Your task to perform on an android device: change text size in settings app Image 0: 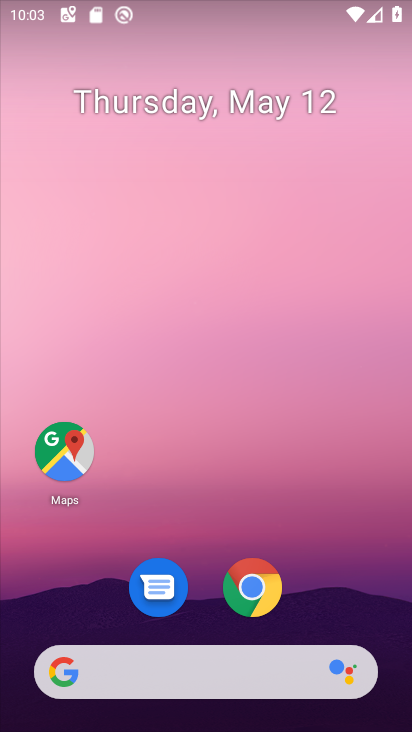
Step 0: drag from (390, 638) to (293, 72)
Your task to perform on an android device: change text size in settings app Image 1: 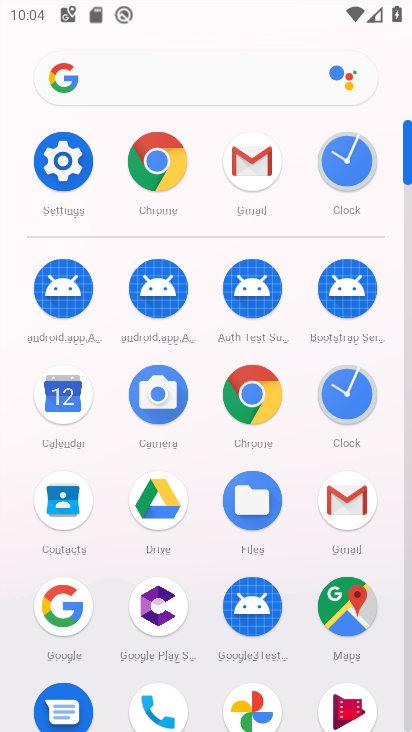
Step 1: click (56, 154)
Your task to perform on an android device: change text size in settings app Image 2: 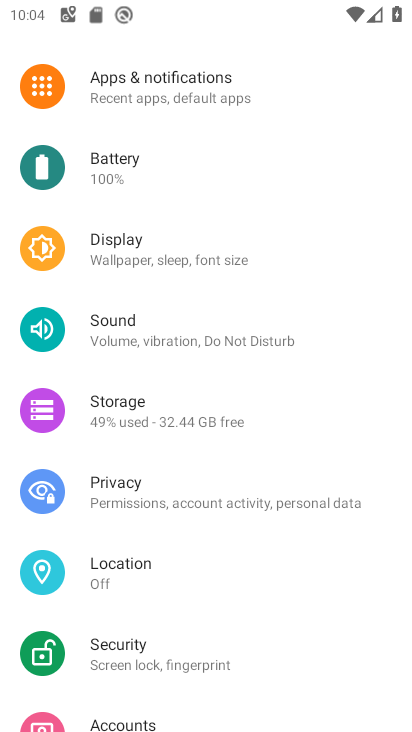
Step 2: click (138, 251)
Your task to perform on an android device: change text size in settings app Image 3: 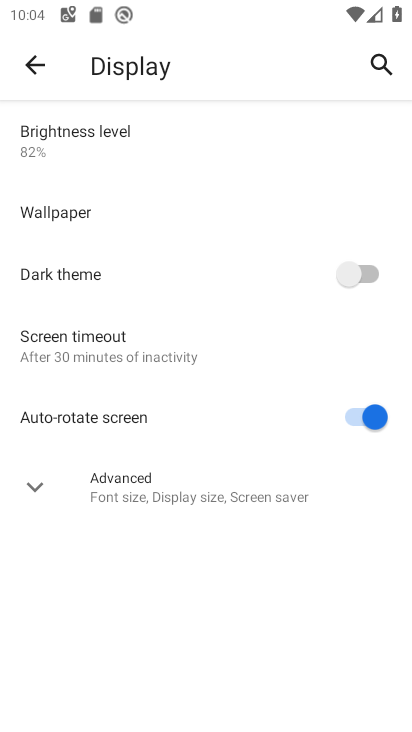
Step 3: click (112, 485)
Your task to perform on an android device: change text size in settings app Image 4: 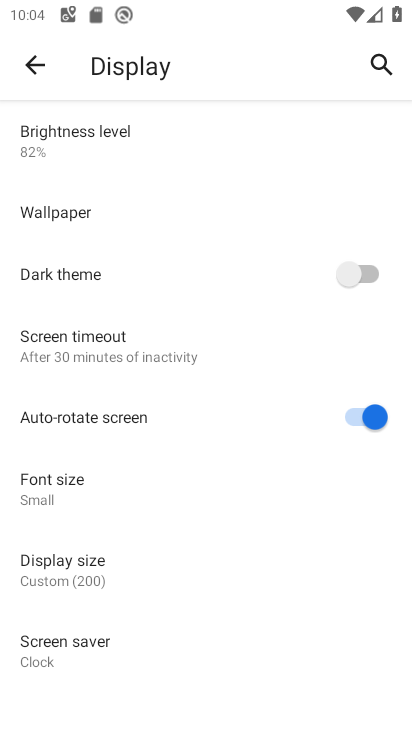
Step 4: click (112, 498)
Your task to perform on an android device: change text size in settings app Image 5: 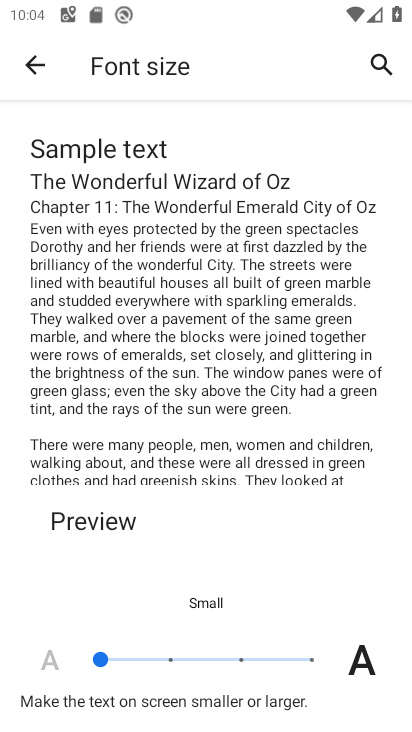
Step 5: click (173, 665)
Your task to perform on an android device: change text size in settings app Image 6: 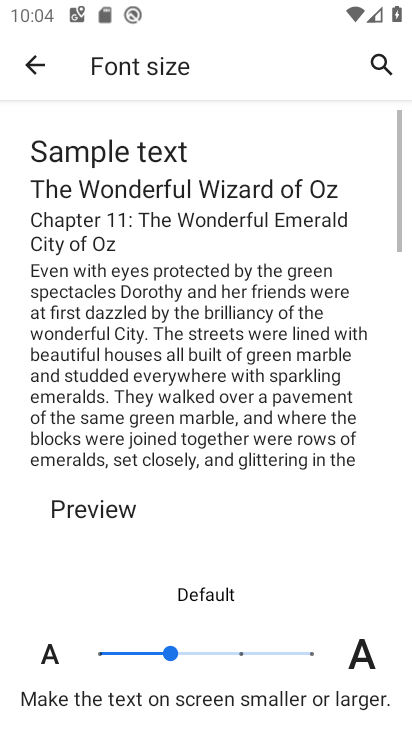
Step 6: task complete